Your task to perform on an android device: uninstall "Truecaller" Image 0: 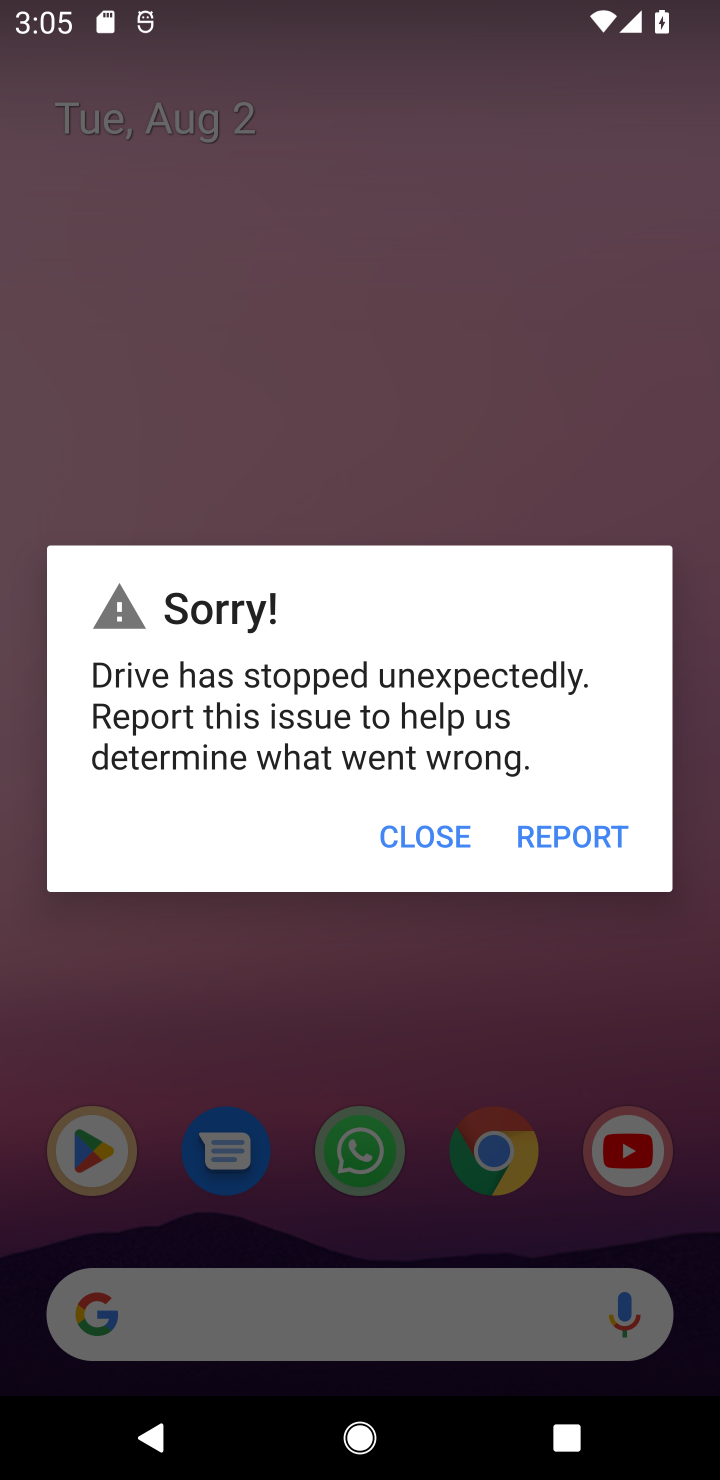
Step 0: press home button
Your task to perform on an android device: uninstall "Truecaller" Image 1: 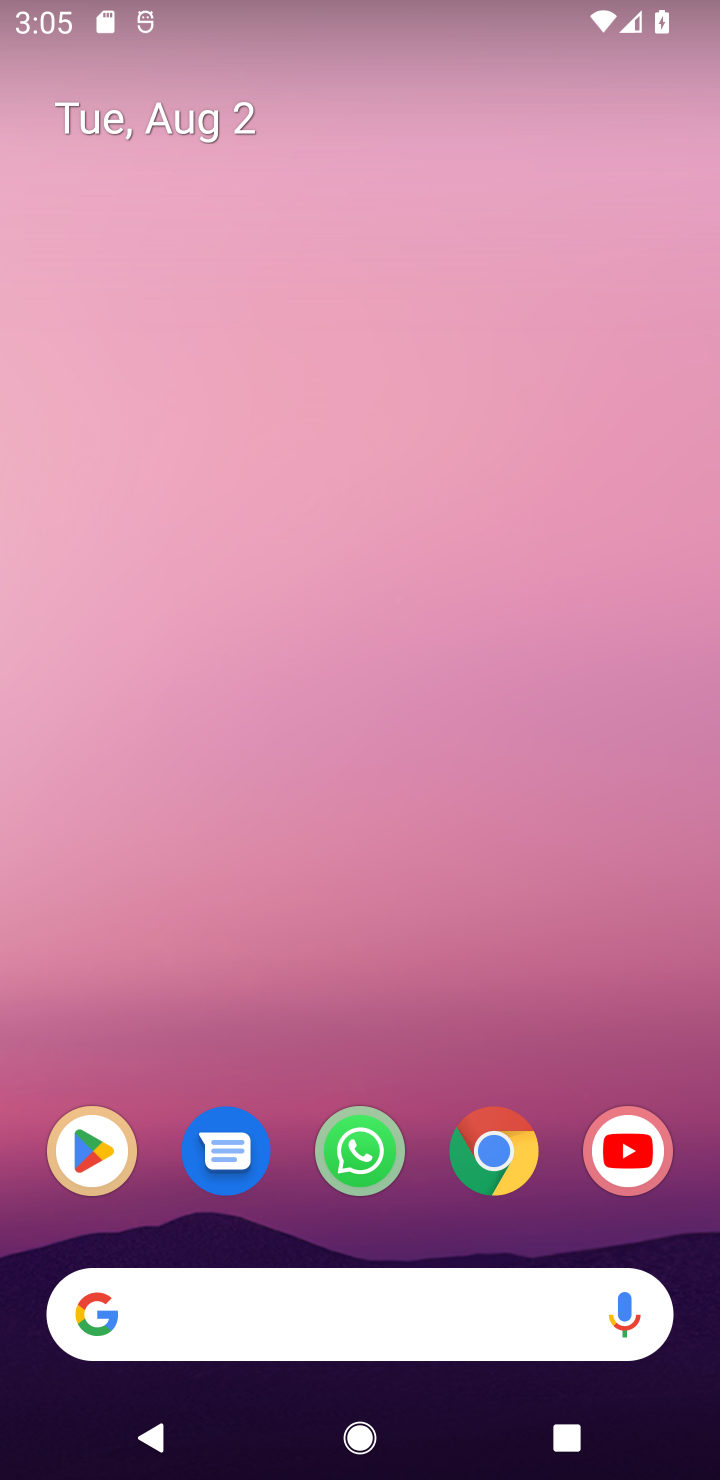
Step 1: click (81, 1173)
Your task to perform on an android device: uninstall "Truecaller" Image 2: 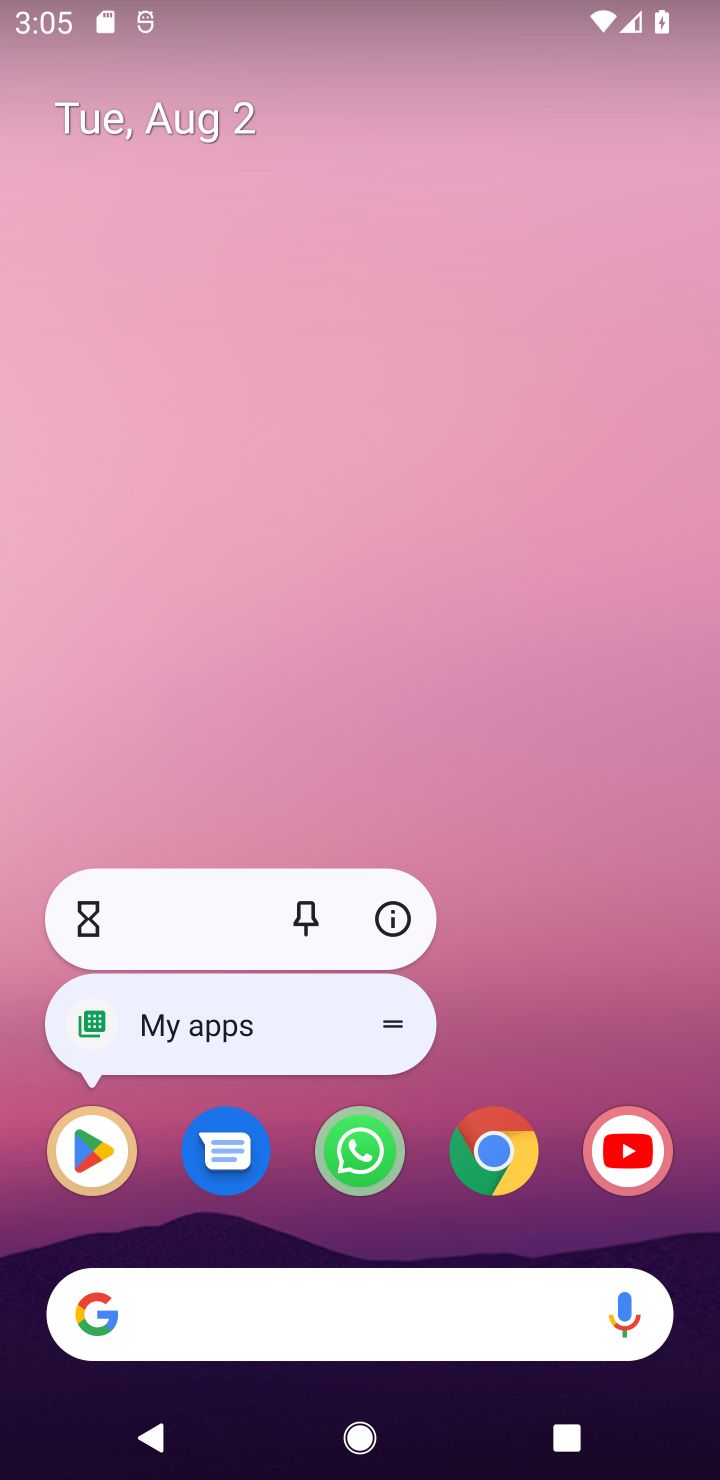
Step 2: click (81, 1173)
Your task to perform on an android device: uninstall "Truecaller" Image 3: 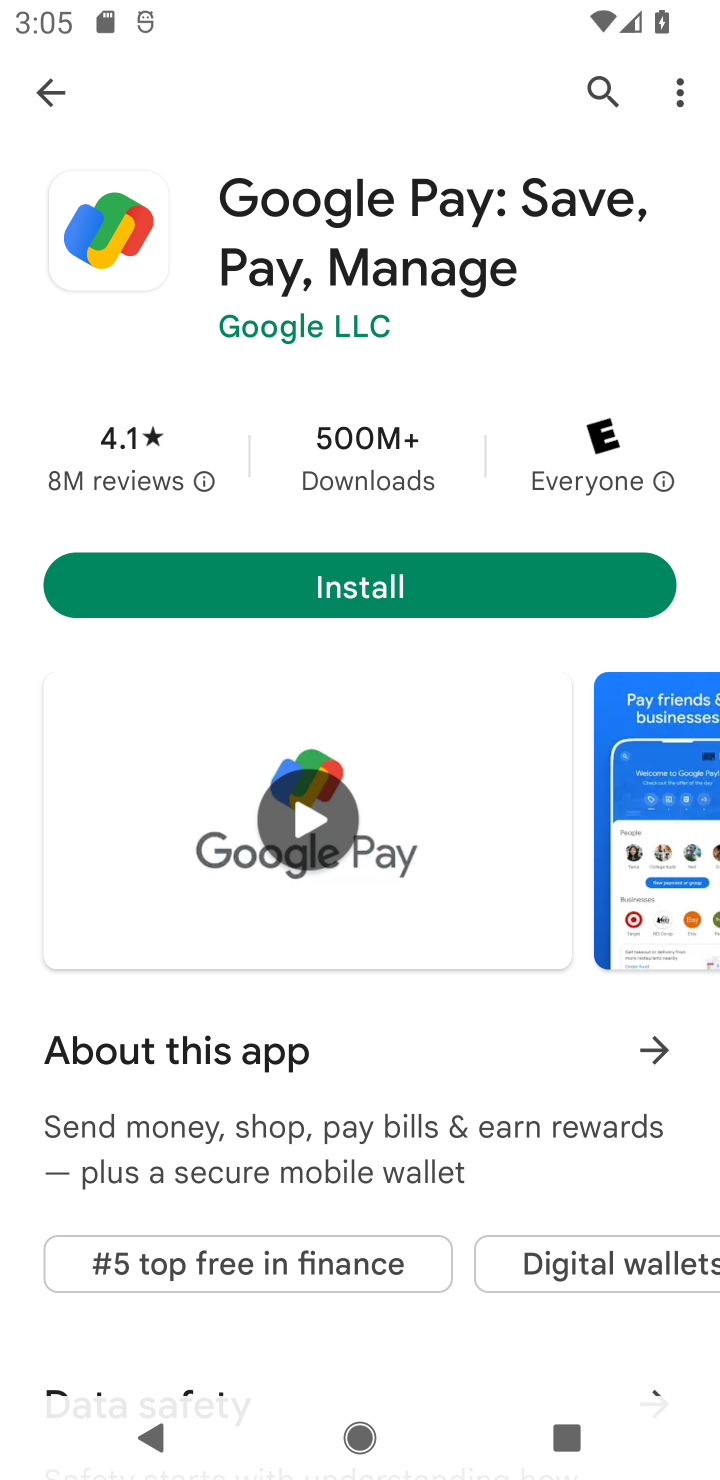
Step 3: click (610, 81)
Your task to perform on an android device: uninstall "Truecaller" Image 4: 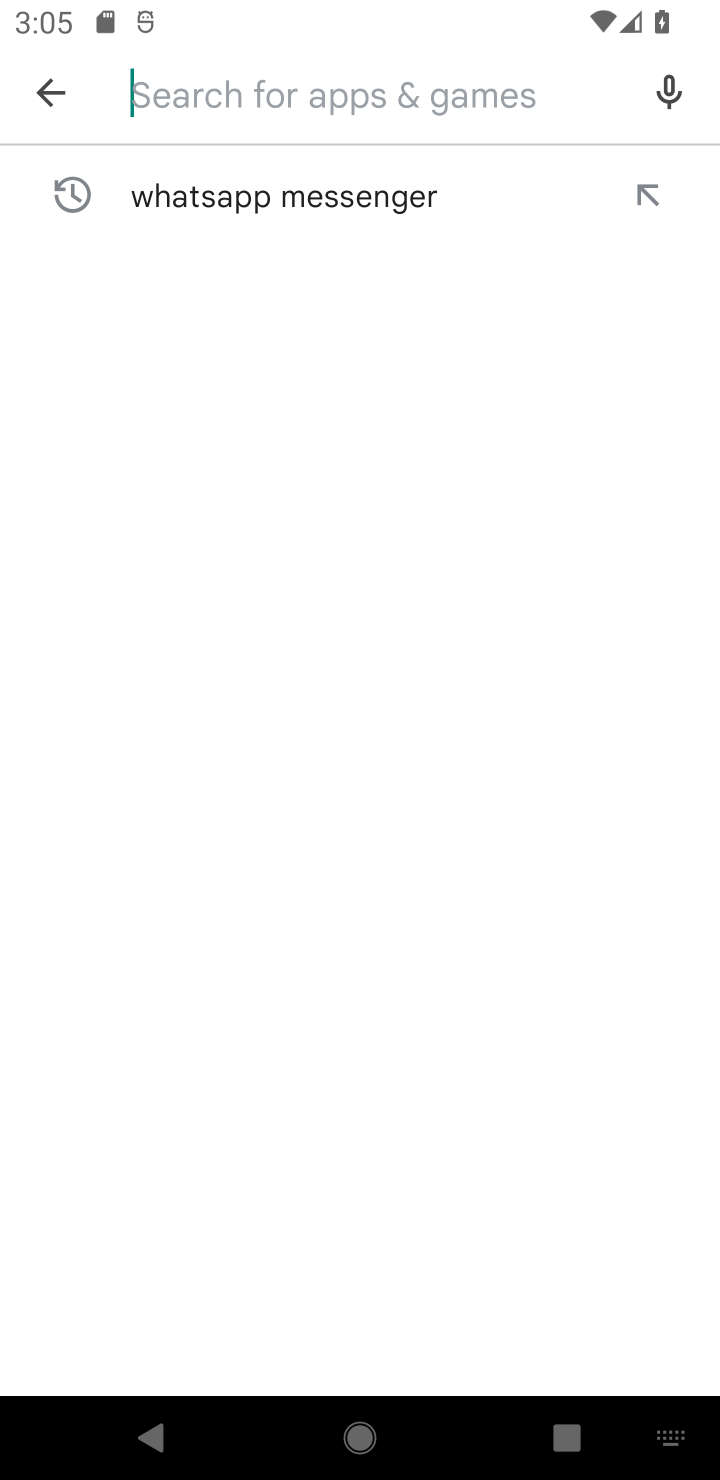
Step 4: type "truecaller"
Your task to perform on an android device: uninstall "Truecaller" Image 5: 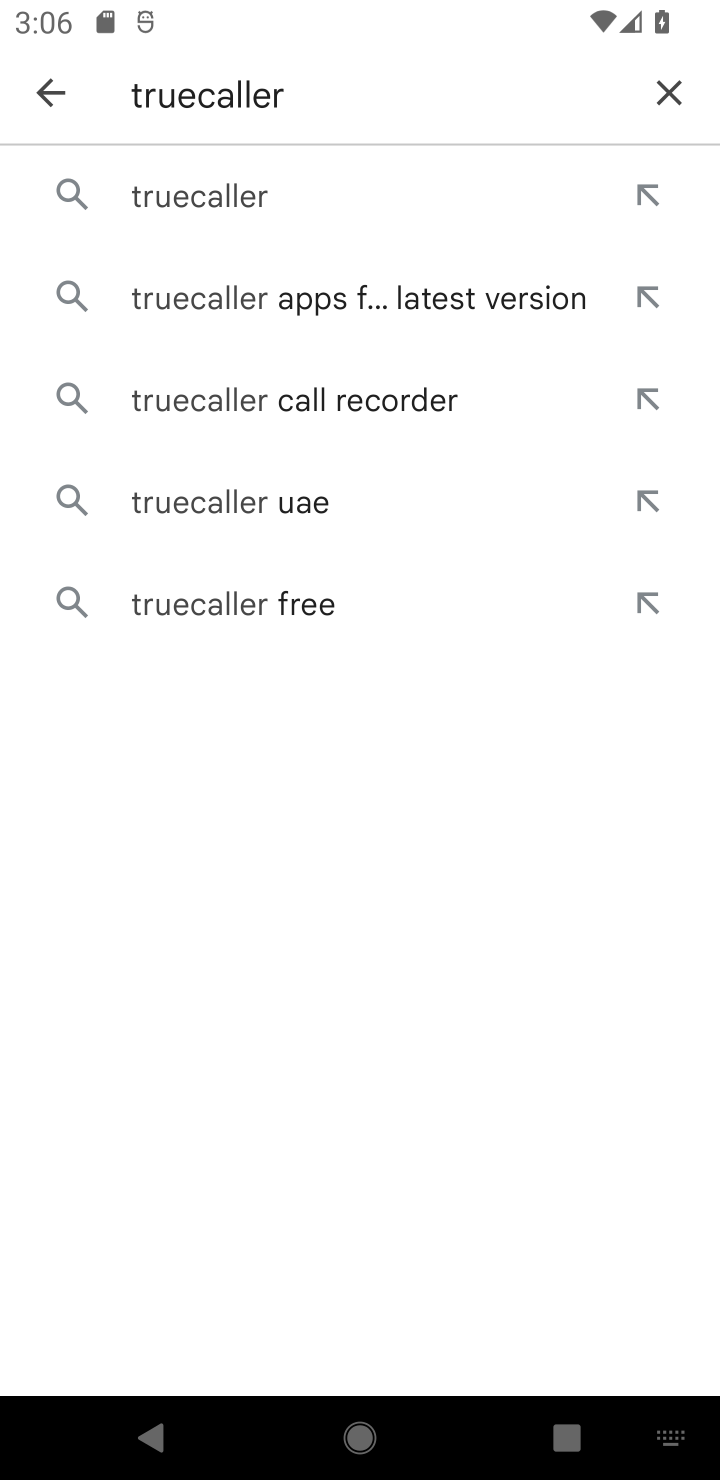
Step 5: click (242, 193)
Your task to perform on an android device: uninstall "Truecaller" Image 6: 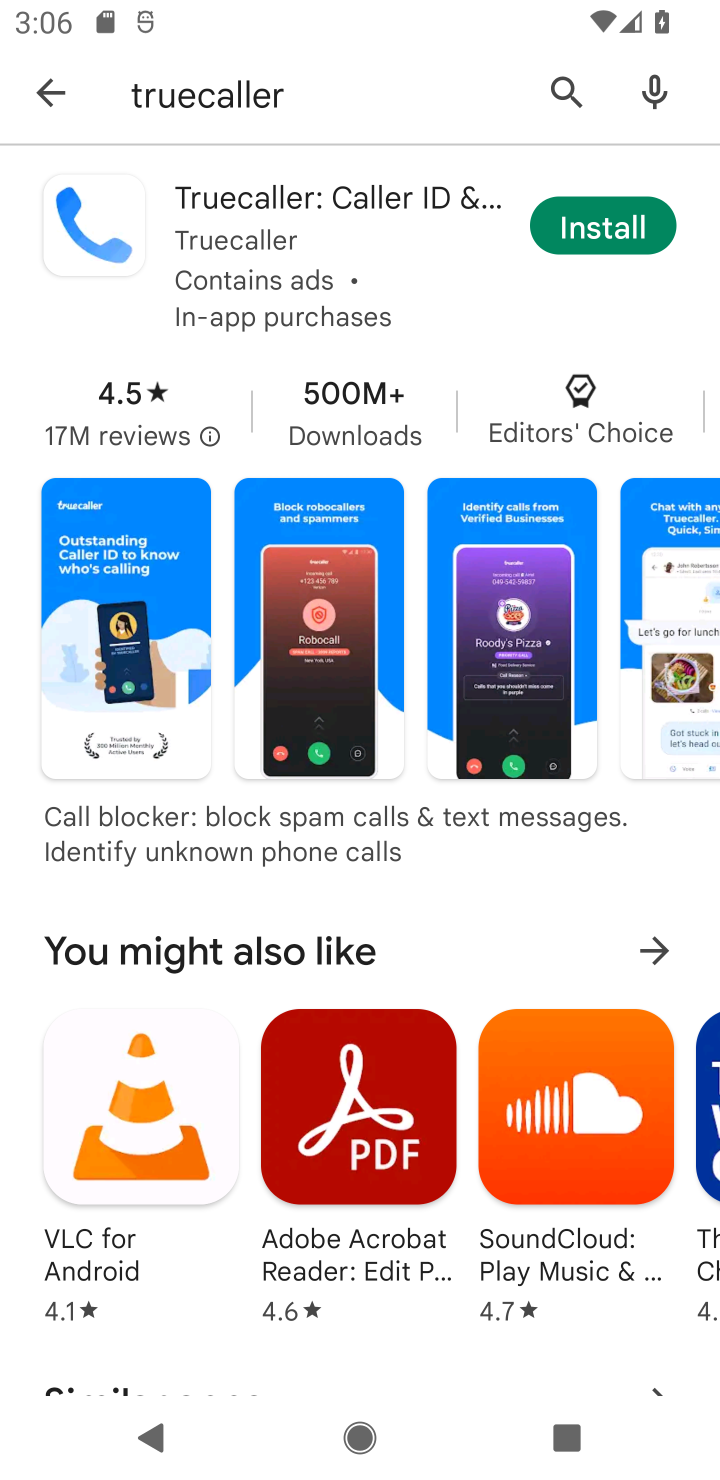
Step 6: click (242, 193)
Your task to perform on an android device: uninstall "Truecaller" Image 7: 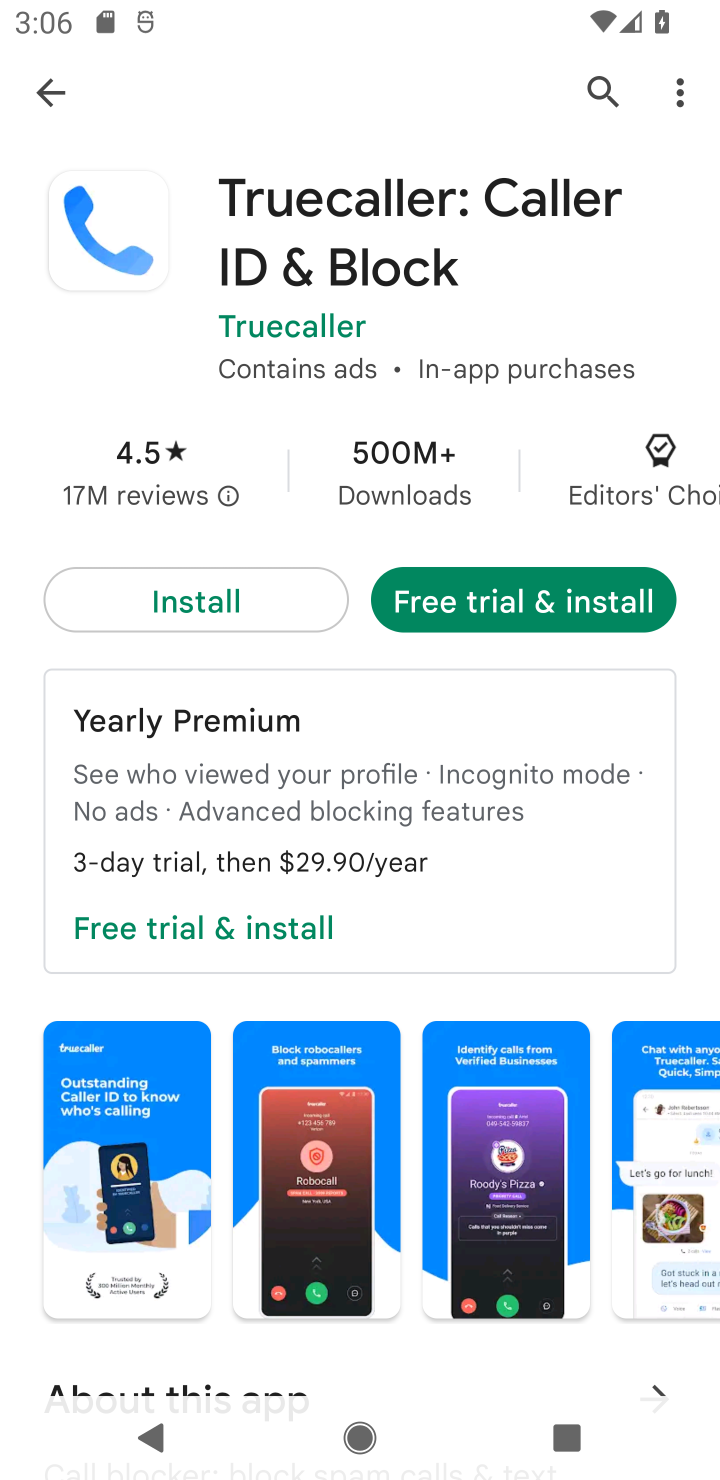
Step 7: task complete